Your task to perform on an android device: Add "macbook pro" to the cart on costco, then select checkout. Image 0: 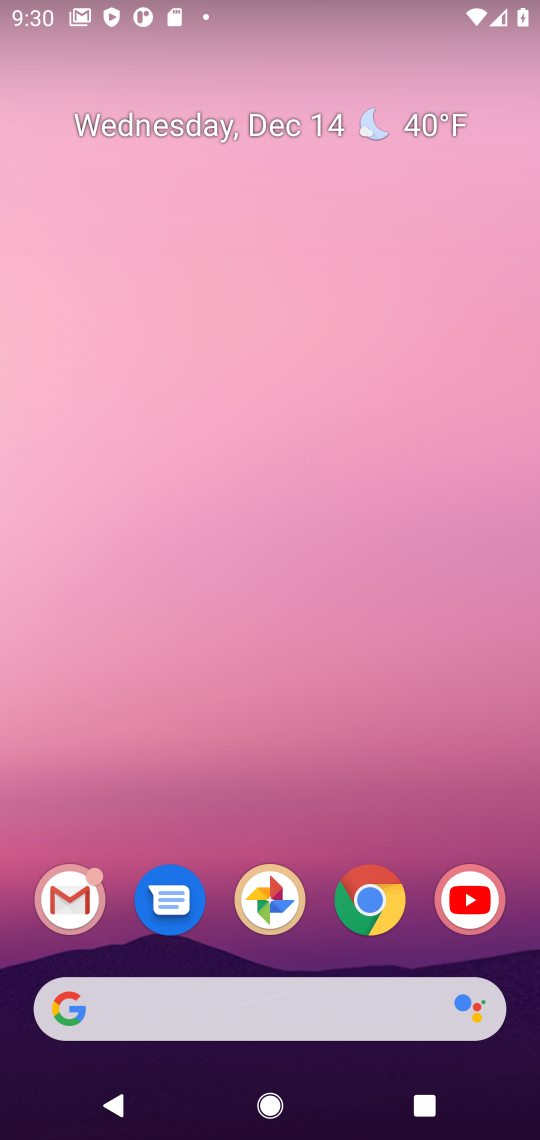
Step 0: click (373, 901)
Your task to perform on an android device: Add "macbook pro" to the cart on costco, then select checkout. Image 1: 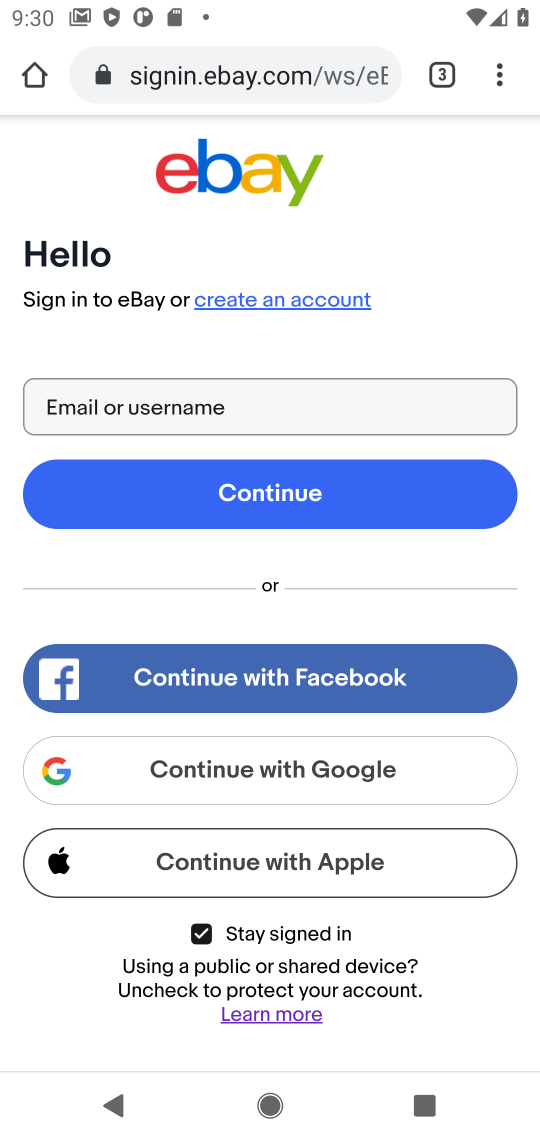
Step 1: click (211, 76)
Your task to perform on an android device: Add "macbook pro" to the cart on costco, then select checkout. Image 2: 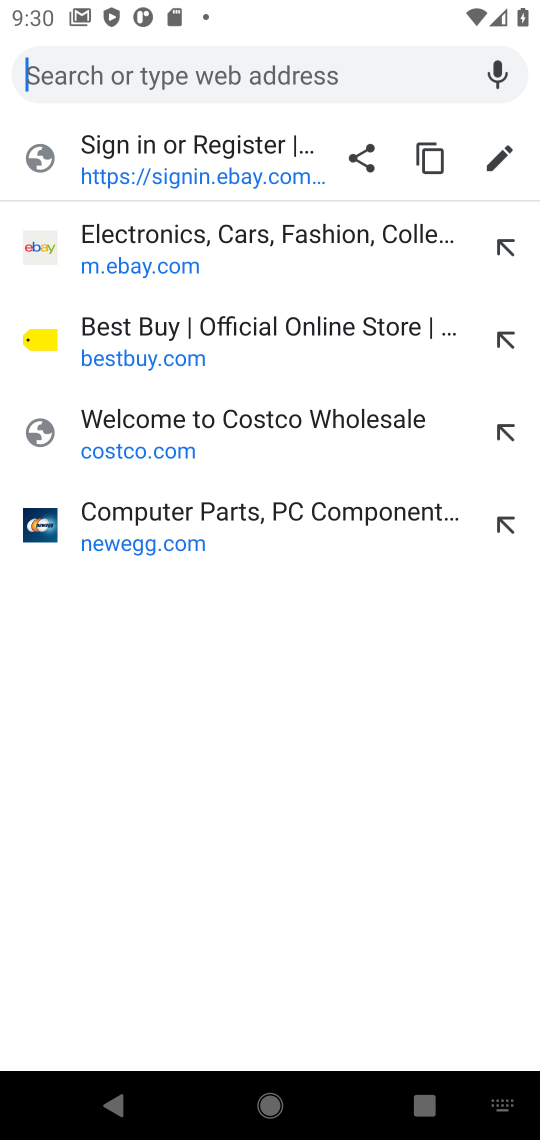
Step 2: click (131, 439)
Your task to perform on an android device: Add "macbook pro" to the cart on costco, then select checkout. Image 3: 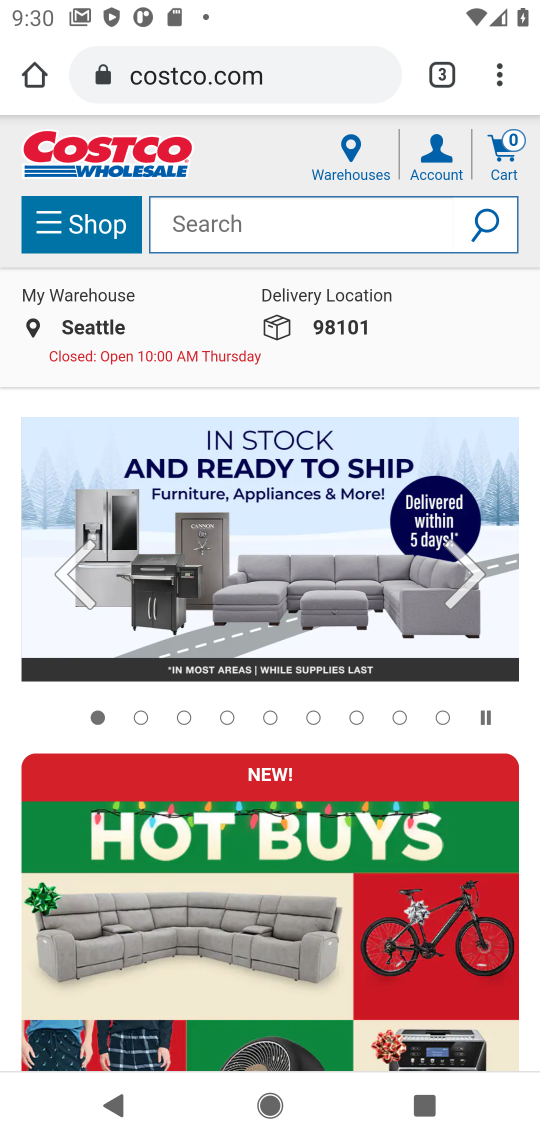
Step 3: click (256, 230)
Your task to perform on an android device: Add "macbook pro" to the cart on costco, then select checkout. Image 4: 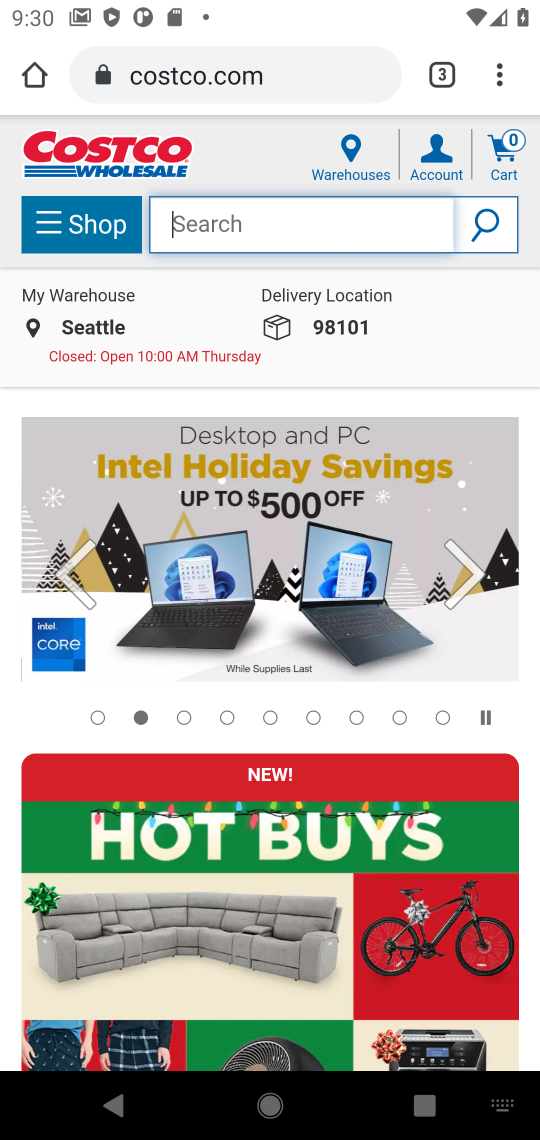
Step 4: type "macbook pro"
Your task to perform on an android device: Add "macbook pro" to the cart on costco, then select checkout. Image 5: 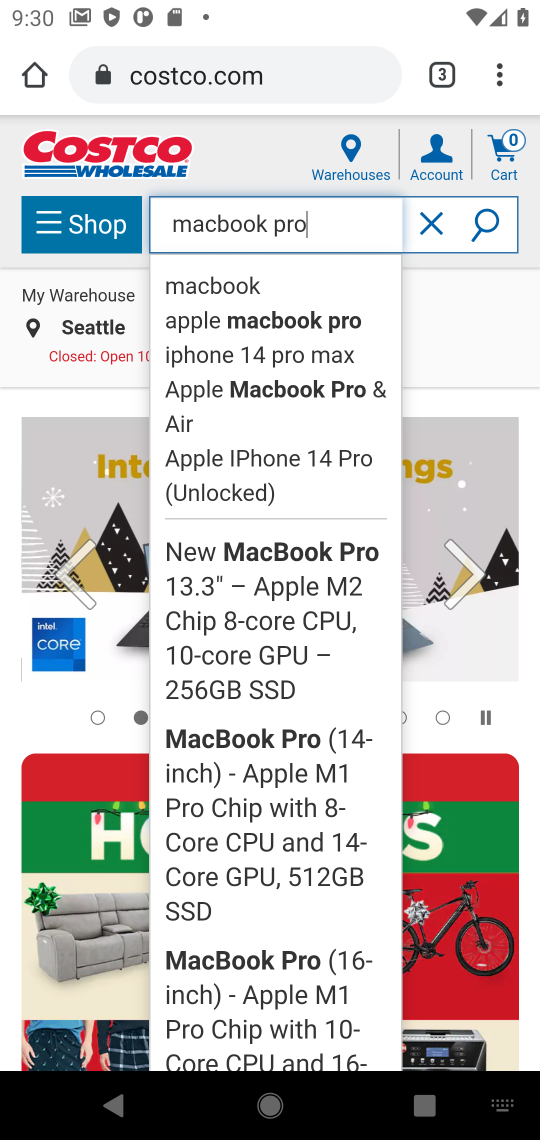
Step 5: click (476, 225)
Your task to perform on an android device: Add "macbook pro" to the cart on costco, then select checkout. Image 6: 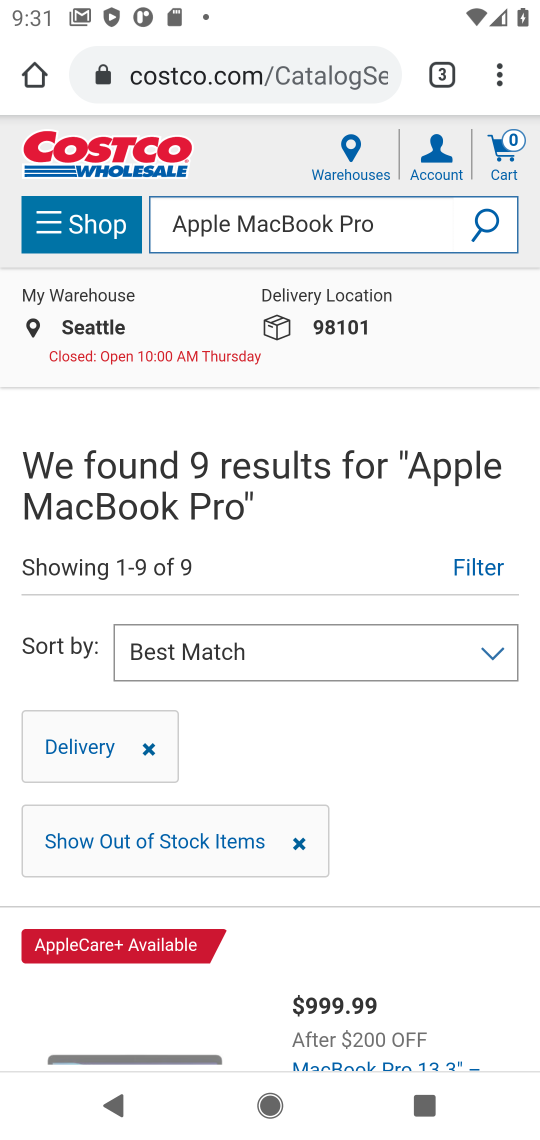
Step 6: drag from (262, 732) to (265, 365)
Your task to perform on an android device: Add "macbook pro" to the cart on costco, then select checkout. Image 7: 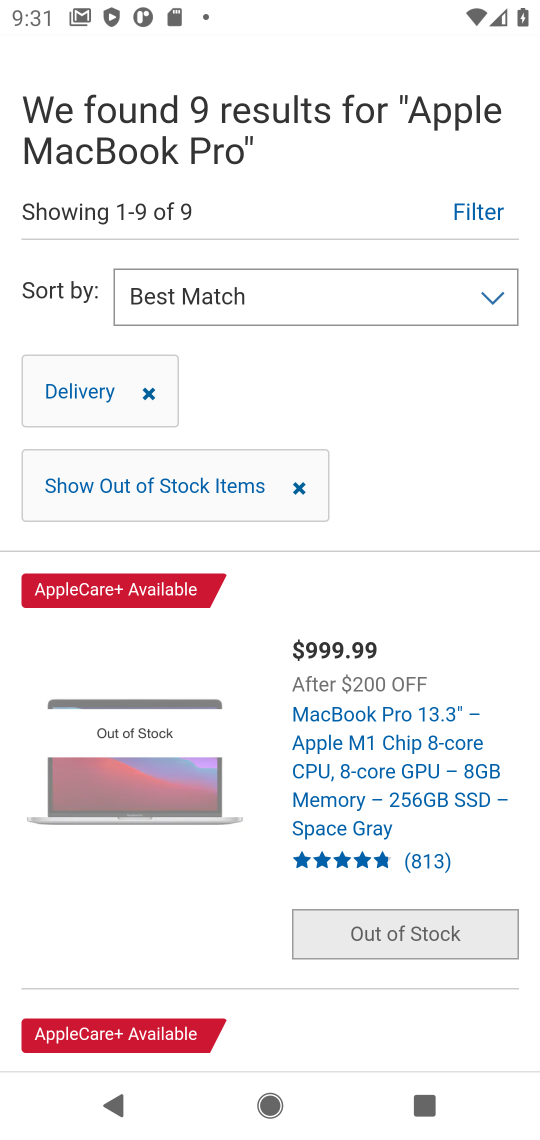
Step 7: drag from (177, 831) to (172, 334)
Your task to perform on an android device: Add "macbook pro" to the cart on costco, then select checkout. Image 8: 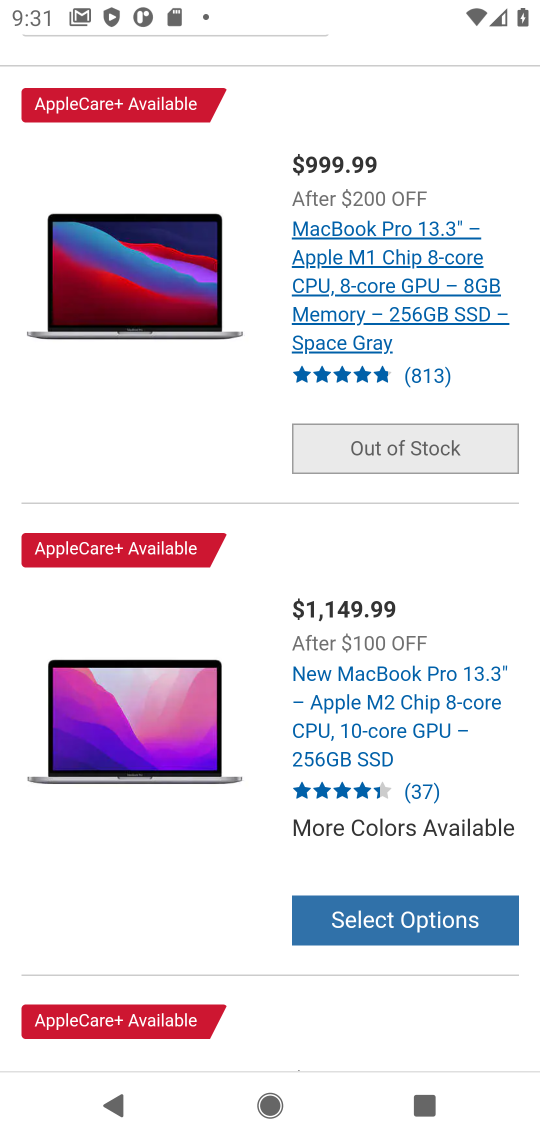
Step 8: click (391, 738)
Your task to perform on an android device: Add "macbook pro" to the cart on costco, then select checkout. Image 9: 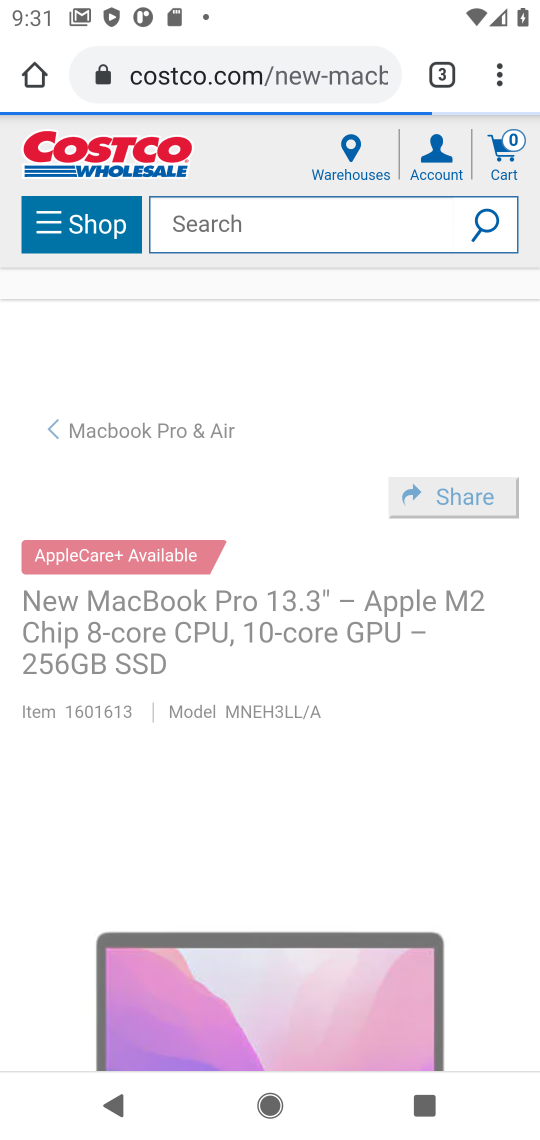
Step 9: drag from (281, 789) to (287, 307)
Your task to perform on an android device: Add "macbook pro" to the cart on costco, then select checkout. Image 10: 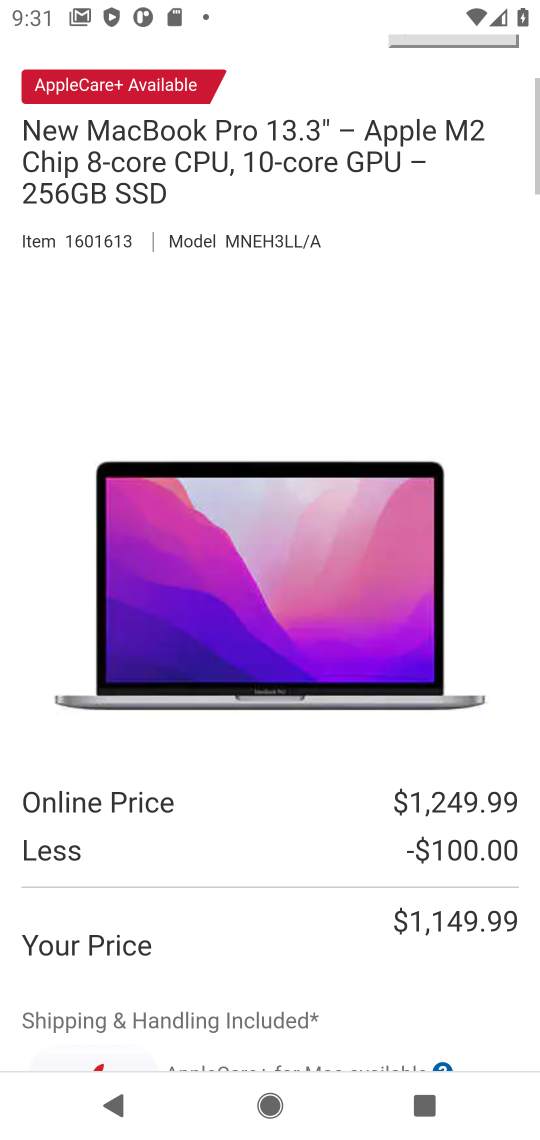
Step 10: drag from (295, 842) to (262, 252)
Your task to perform on an android device: Add "macbook pro" to the cart on costco, then select checkout. Image 11: 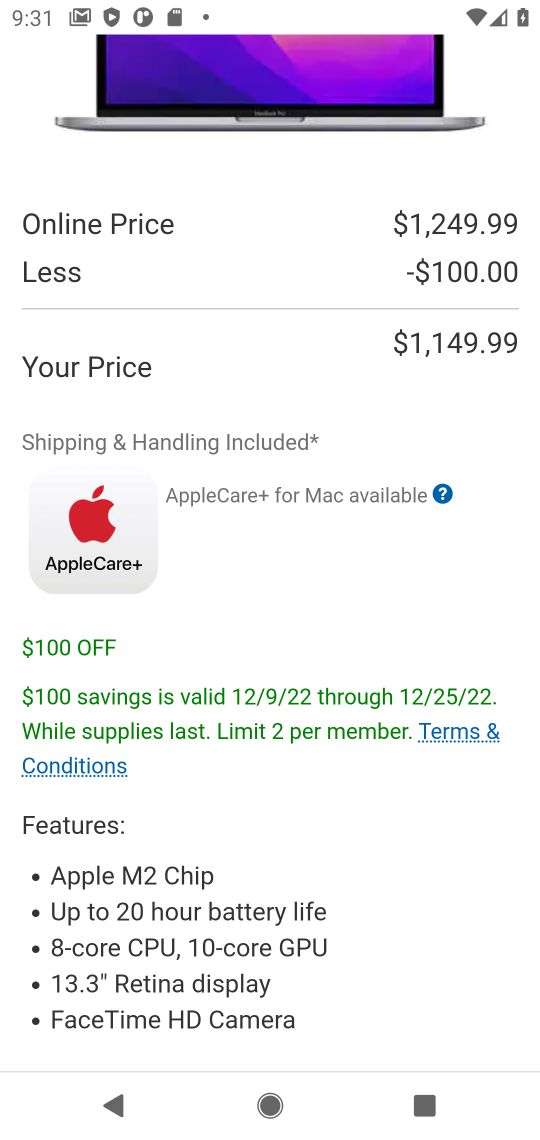
Step 11: drag from (255, 822) to (251, 304)
Your task to perform on an android device: Add "macbook pro" to the cart on costco, then select checkout. Image 12: 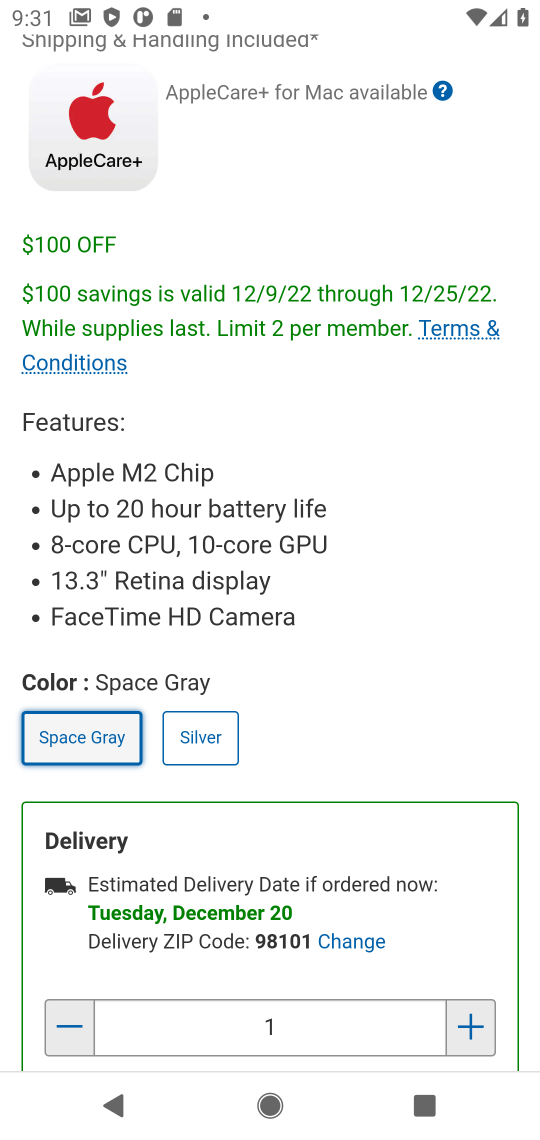
Step 12: drag from (244, 869) to (256, 383)
Your task to perform on an android device: Add "macbook pro" to the cart on costco, then select checkout. Image 13: 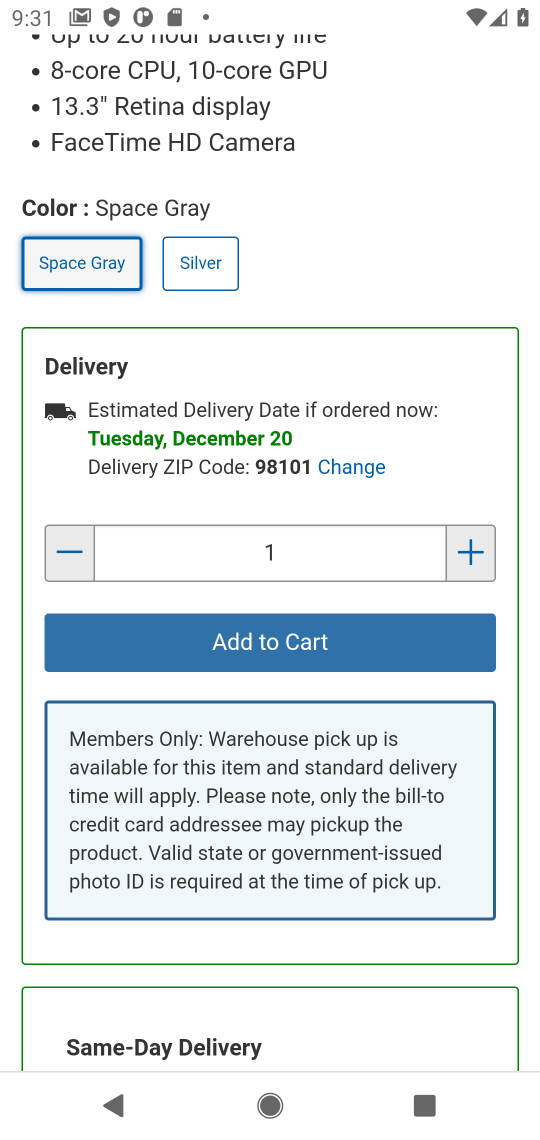
Step 13: click (253, 647)
Your task to perform on an android device: Add "macbook pro" to the cart on costco, then select checkout. Image 14: 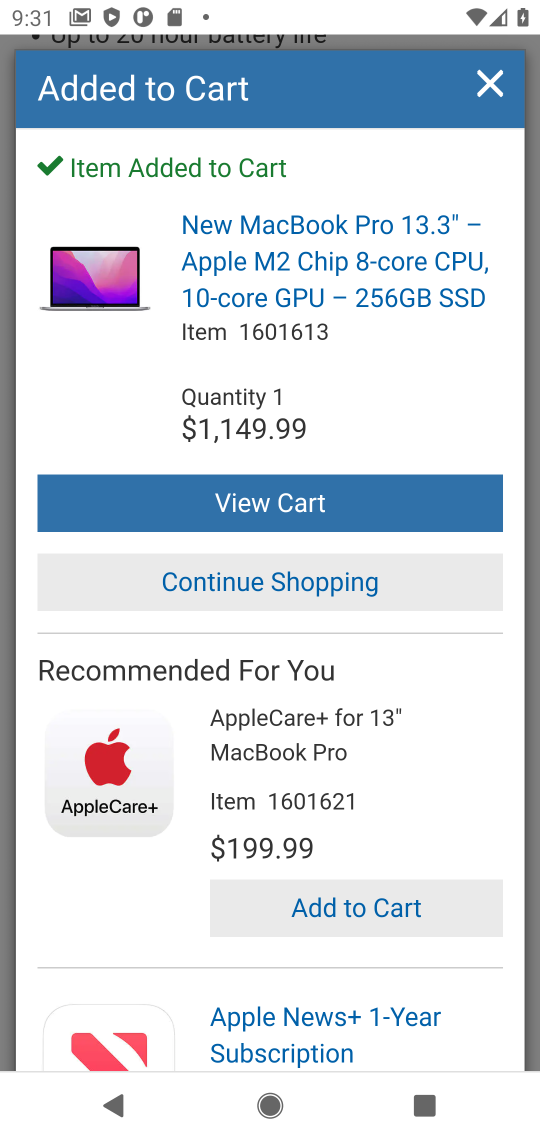
Step 14: click (254, 507)
Your task to perform on an android device: Add "macbook pro" to the cart on costco, then select checkout. Image 15: 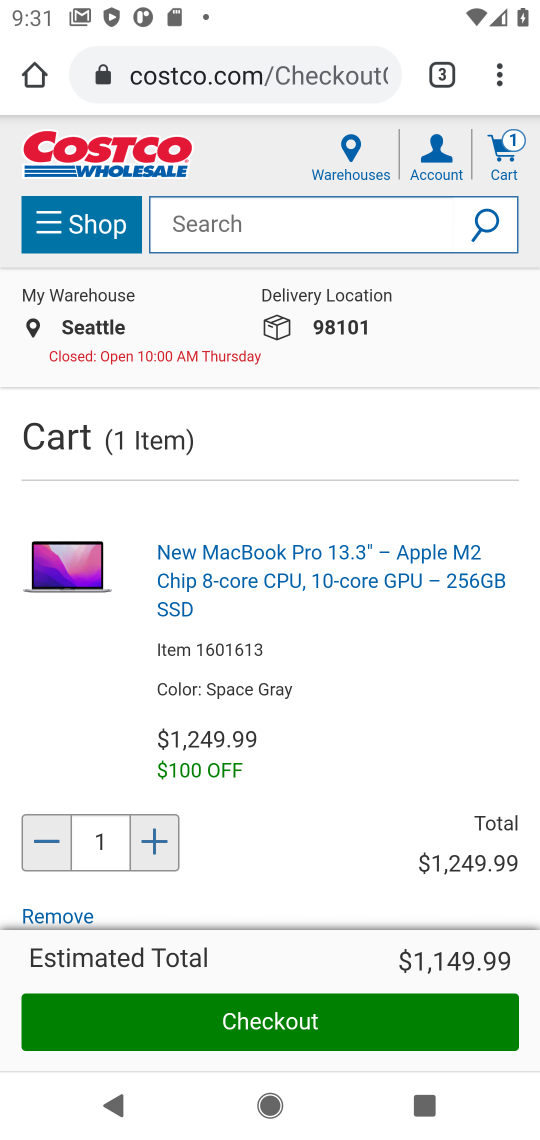
Step 15: click (243, 1032)
Your task to perform on an android device: Add "macbook pro" to the cart on costco, then select checkout. Image 16: 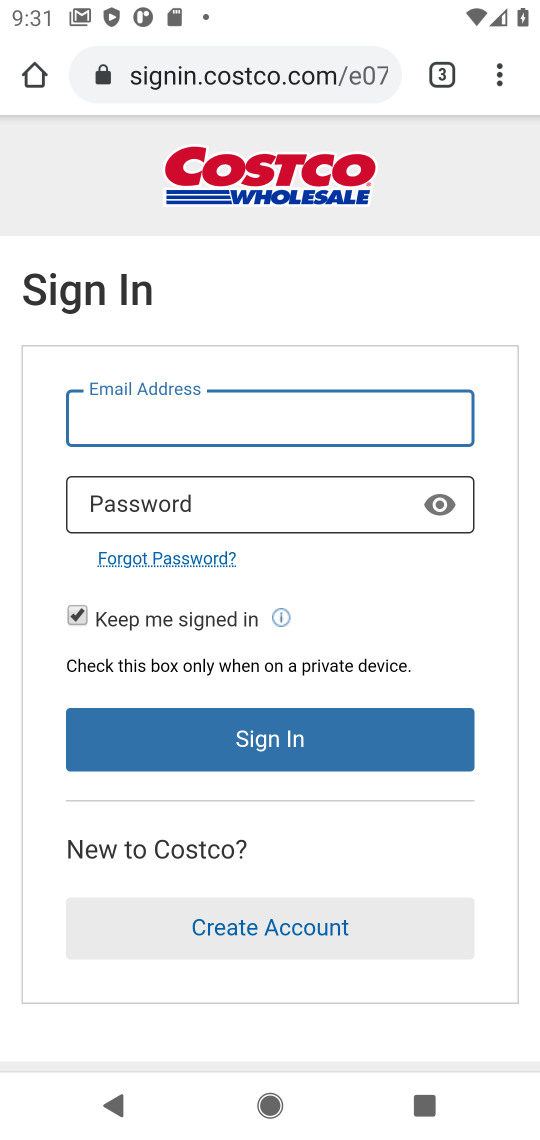
Step 16: task complete